Your task to perform on an android device: Open network settings Image 0: 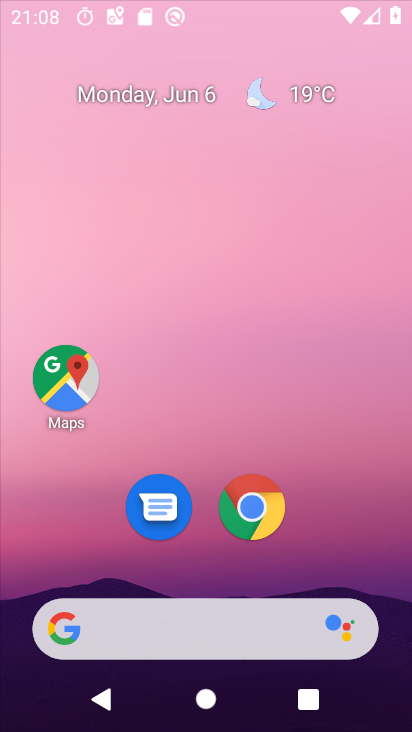
Step 0: press home button
Your task to perform on an android device: Open network settings Image 1: 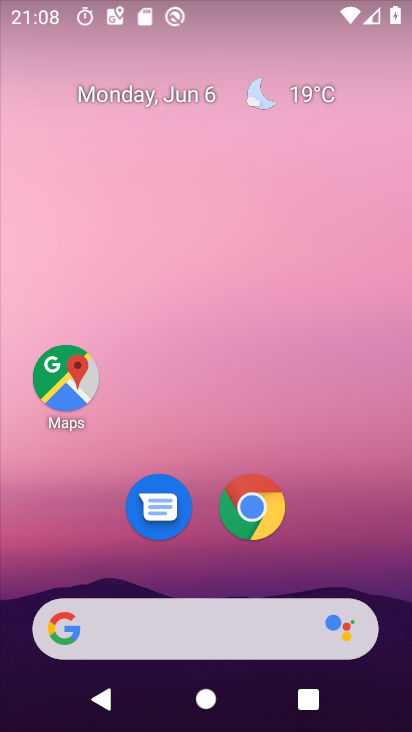
Step 1: drag from (383, 542) to (330, 64)
Your task to perform on an android device: Open network settings Image 2: 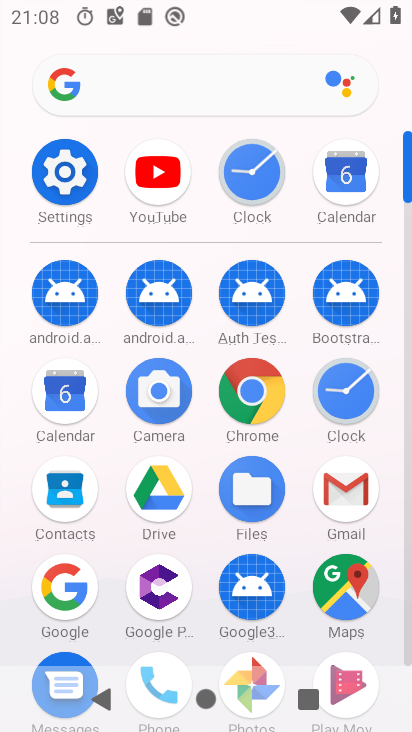
Step 2: click (90, 195)
Your task to perform on an android device: Open network settings Image 3: 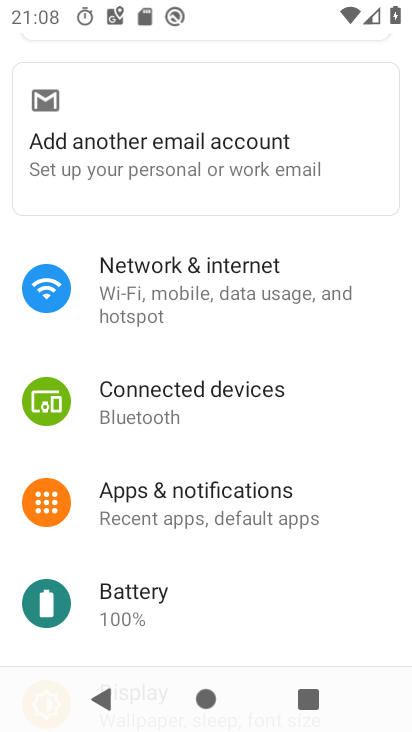
Step 3: click (169, 291)
Your task to perform on an android device: Open network settings Image 4: 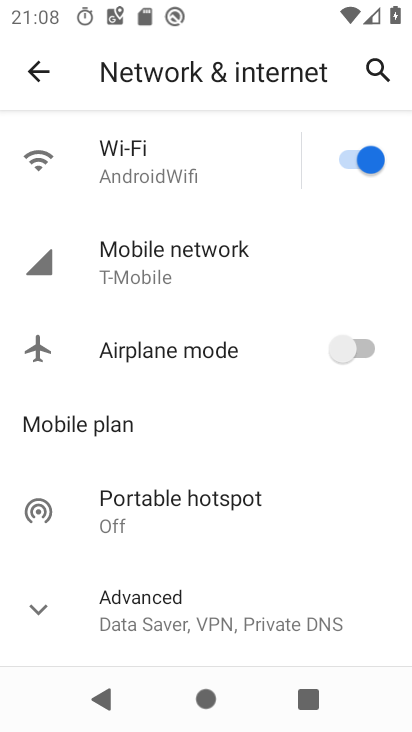
Step 4: task complete